Your task to perform on an android device: see tabs open on other devices in the chrome app Image 0: 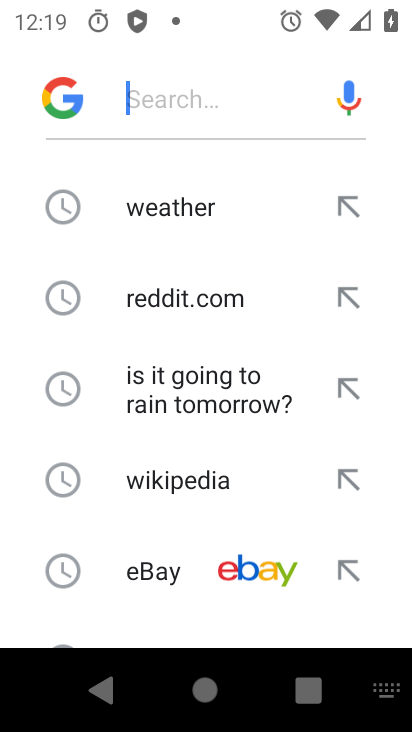
Step 0: press home button
Your task to perform on an android device: see tabs open on other devices in the chrome app Image 1: 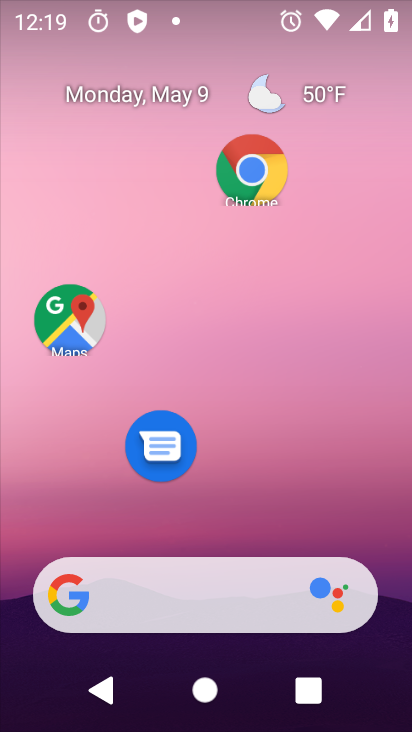
Step 1: drag from (257, 525) to (264, 114)
Your task to perform on an android device: see tabs open on other devices in the chrome app Image 2: 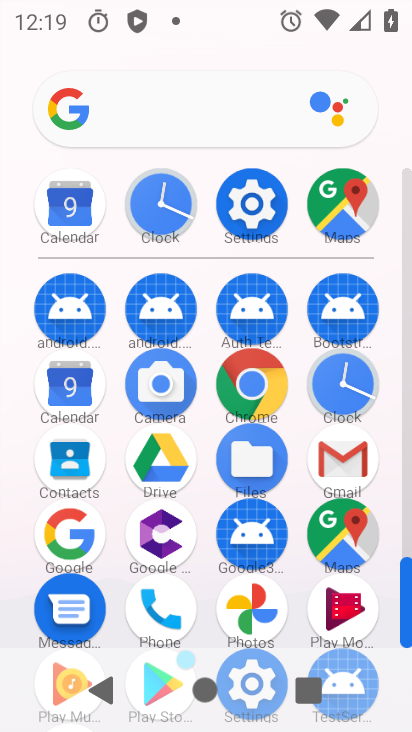
Step 2: click (244, 374)
Your task to perform on an android device: see tabs open on other devices in the chrome app Image 3: 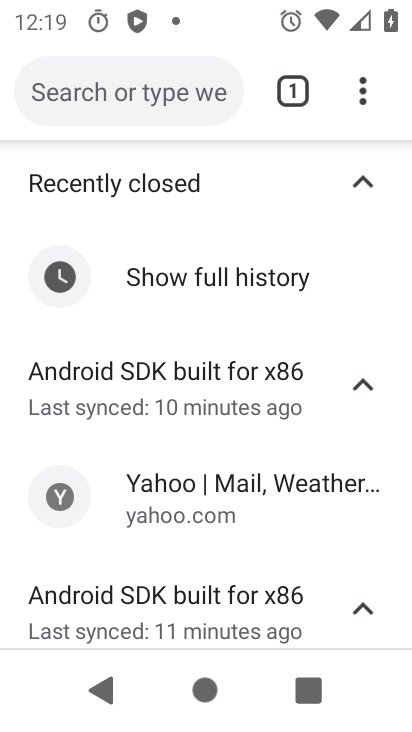
Step 3: click (357, 88)
Your task to perform on an android device: see tabs open on other devices in the chrome app Image 4: 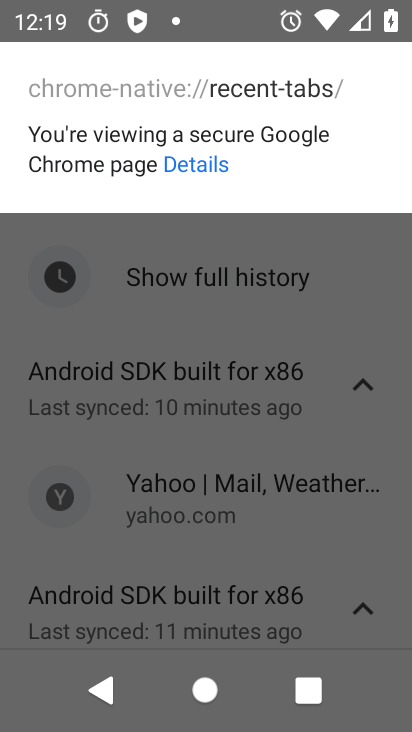
Step 4: click (311, 314)
Your task to perform on an android device: see tabs open on other devices in the chrome app Image 5: 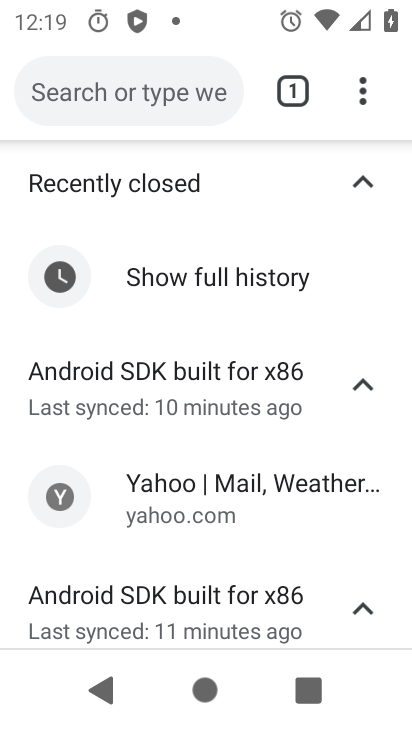
Step 5: click (358, 98)
Your task to perform on an android device: see tabs open on other devices in the chrome app Image 6: 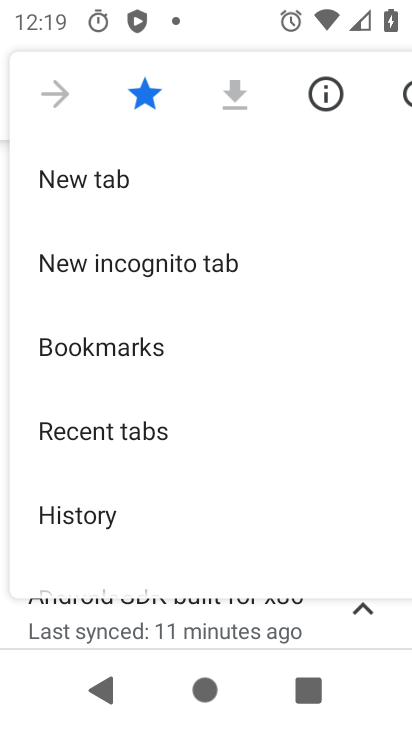
Step 6: click (111, 430)
Your task to perform on an android device: see tabs open on other devices in the chrome app Image 7: 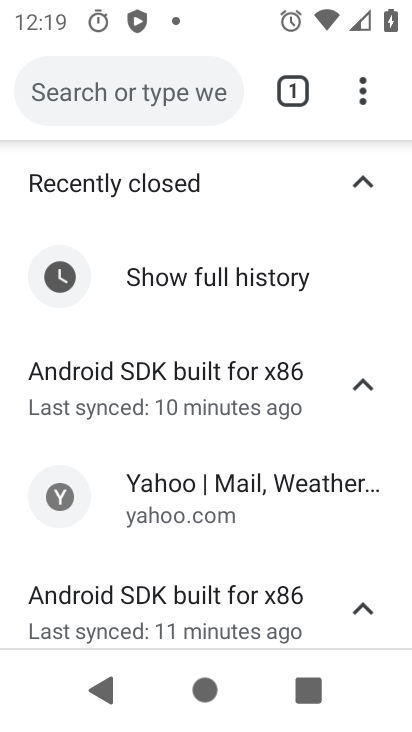
Step 7: task complete